Your task to perform on an android device: Open Chrome and go to the settings page Image 0: 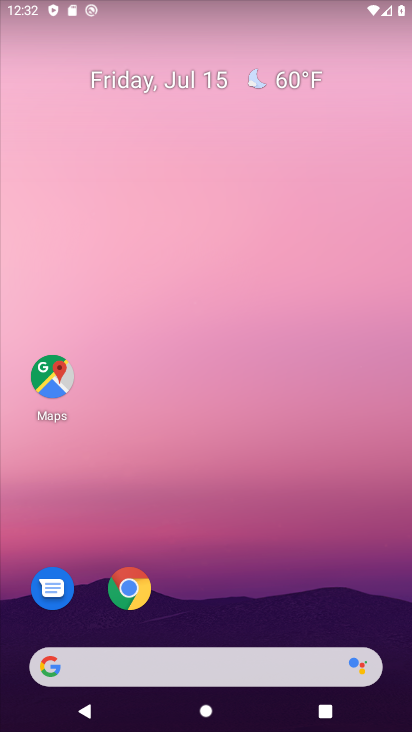
Step 0: click (132, 581)
Your task to perform on an android device: Open Chrome and go to the settings page Image 1: 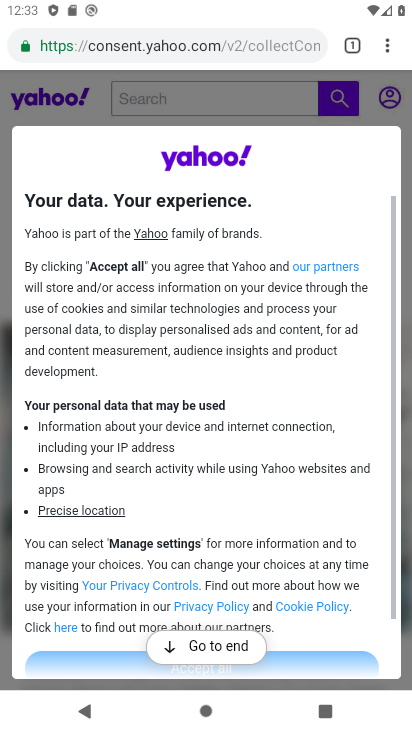
Step 1: click (388, 51)
Your task to perform on an android device: Open Chrome and go to the settings page Image 2: 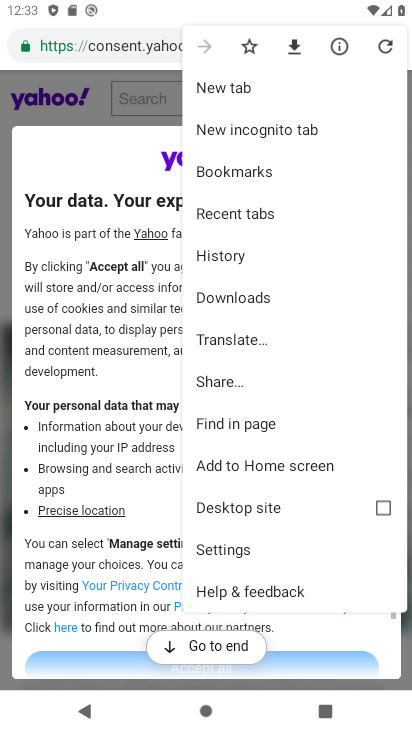
Step 2: click (223, 553)
Your task to perform on an android device: Open Chrome and go to the settings page Image 3: 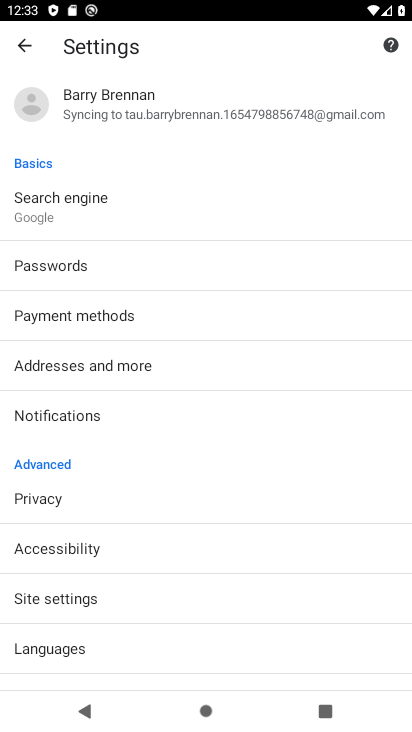
Step 3: task complete